Your task to perform on an android device: Go to Amazon Image 0: 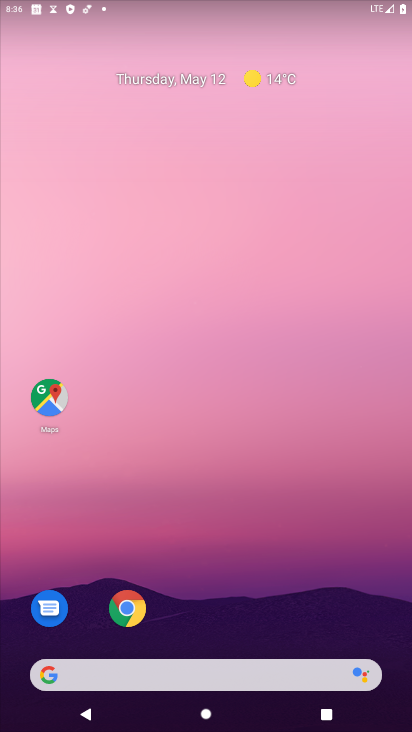
Step 0: click (129, 615)
Your task to perform on an android device: Go to Amazon Image 1: 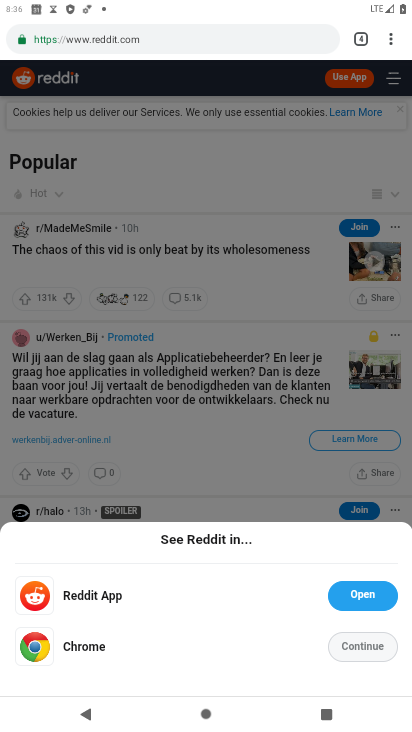
Step 1: click (363, 33)
Your task to perform on an android device: Go to Amazon Image 2: 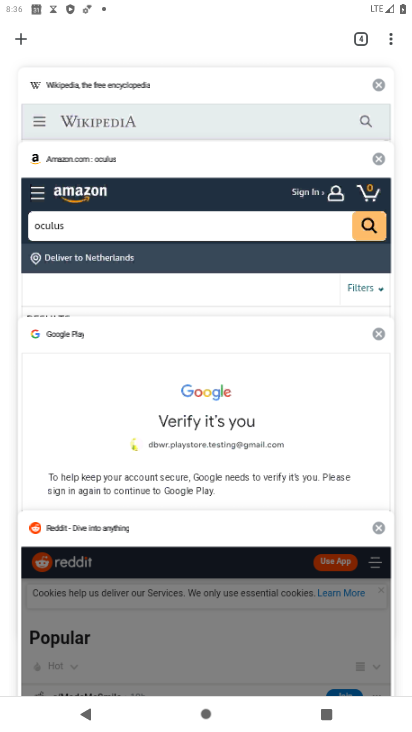
Step 2: click (379, 84)
Your task to perform on an android device: Go to Amazon Image 3: 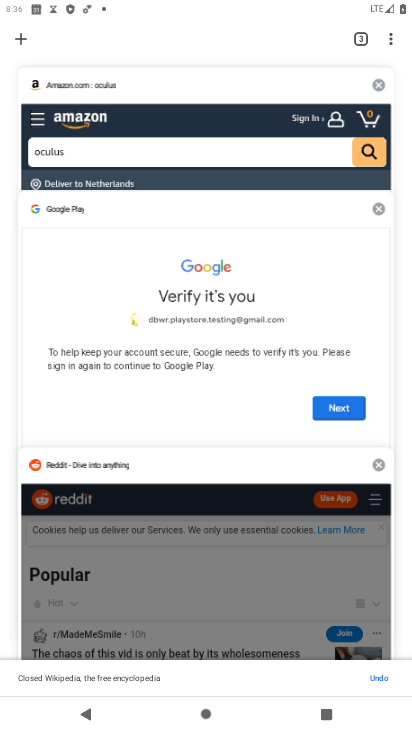
Step 3: click (378, 210)
Your task to perform on an android device: Go to Amazon Image 4: 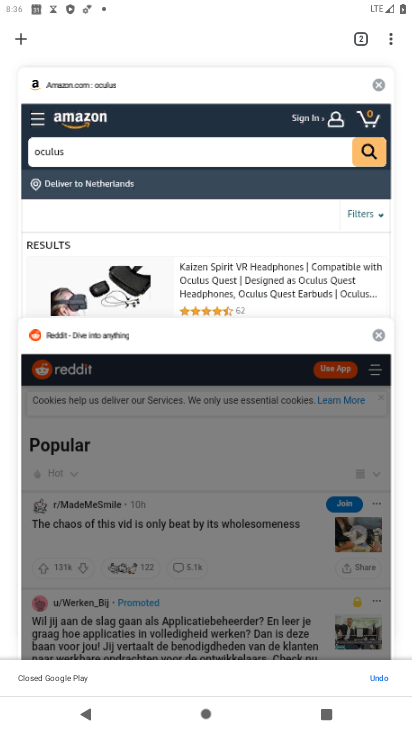
Step 4: click (380, 334)
Your task to perform on an android device: Go to Amazon Image 5: 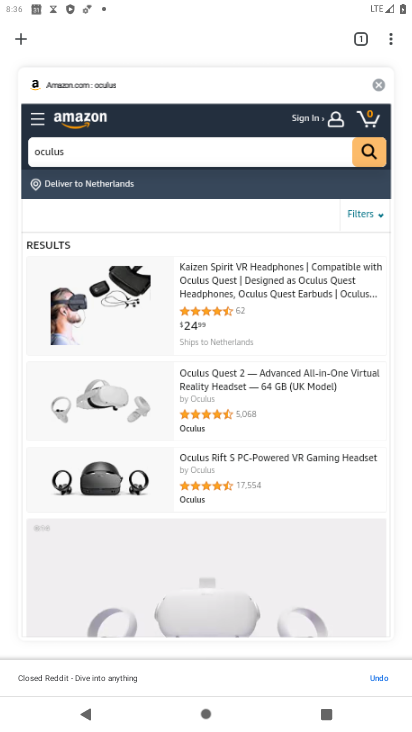
Step 5: click (132, 317)
Your task to perform on an android device: Go to Amazon Image 6: 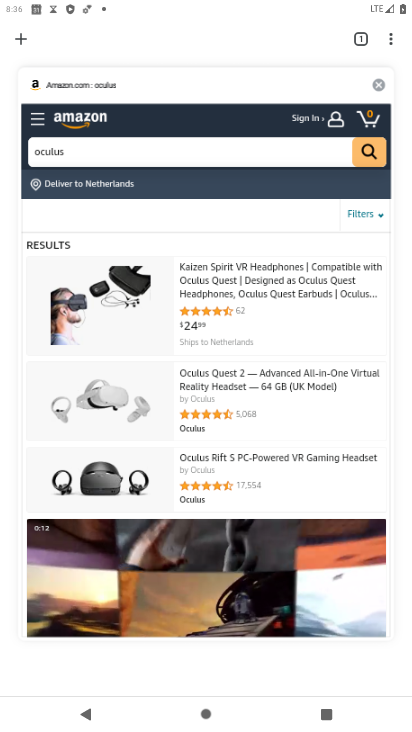
Step 6: click (370, 351)
Your task to perform on an android device: Go to Amazon Image 7: 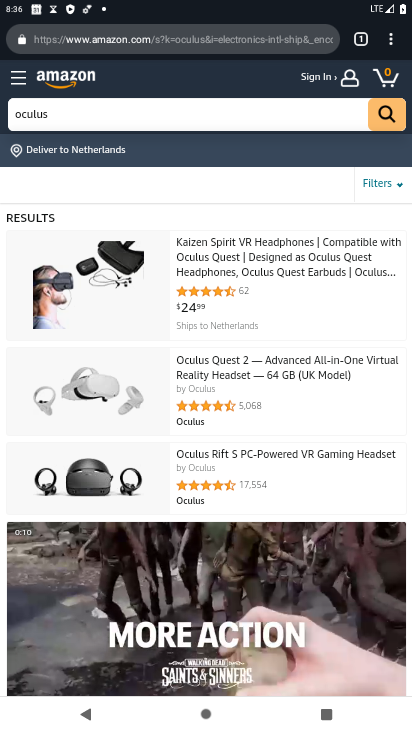
Step 7: click (395, 230)
Your task to perform on an android device: Go to Amazon Image 8: 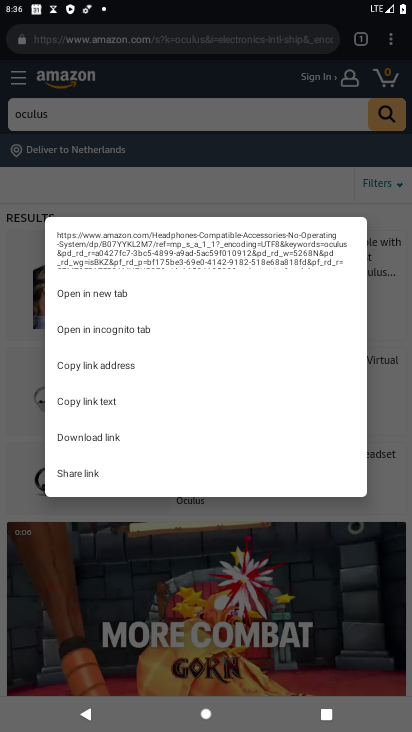
Step 8: click (2, 511)
Your task to perform on an android device: Go to Amazon Image 9: 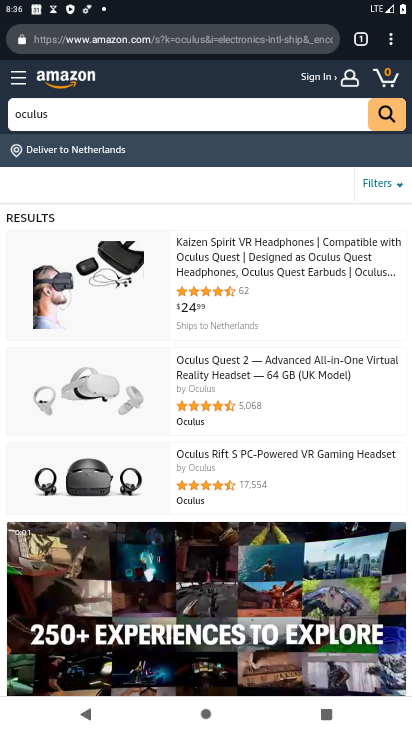
Step 9: task complete